Your task to perform on an android device: Go to Reddit.com Image 0: 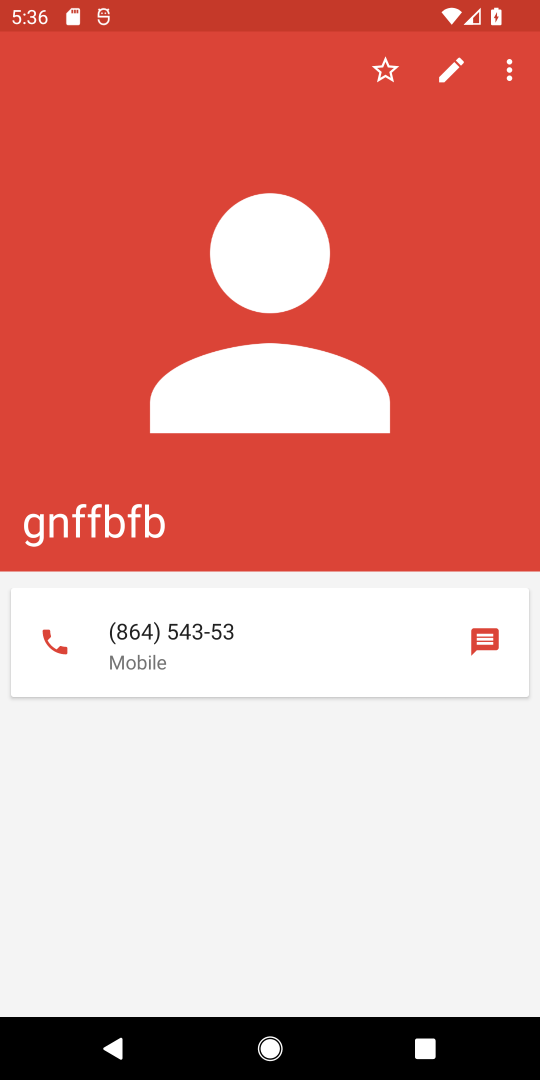
Step 0: press home button
Your task to perform on an android device: Go to Reddit.com Image 1: 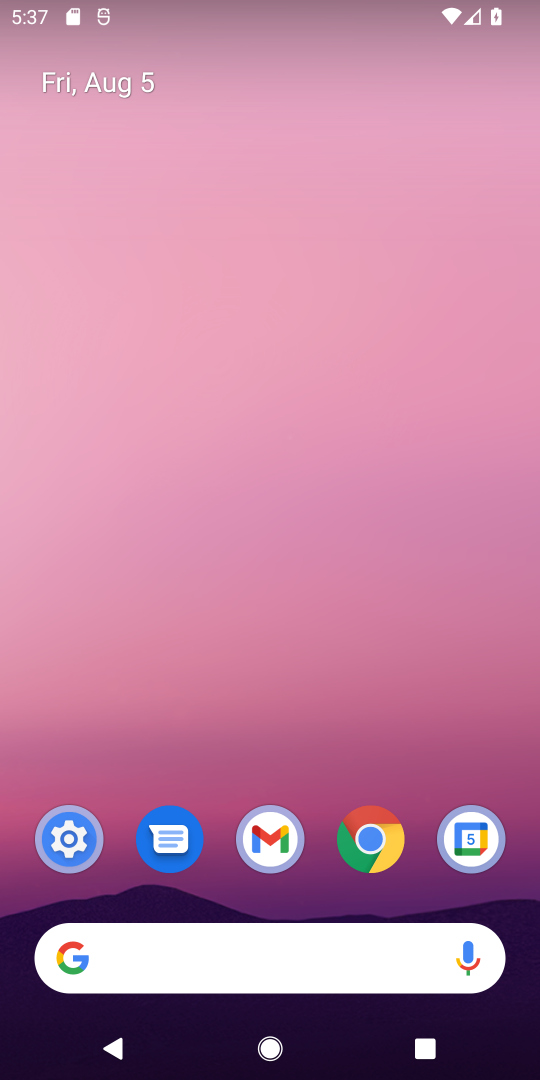
Step 1: click (388, 857)
Your task to perform on an android device: Go to Reddit.com Image 2: 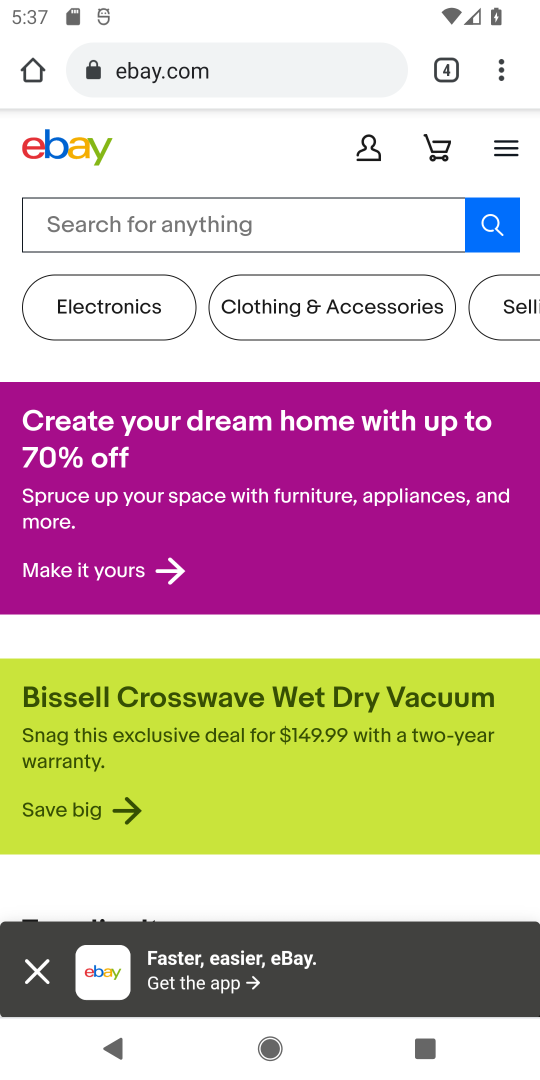
Step 2: click (434, 69)
Your task to perform on an android device: Go to Reddit.com Image 3: 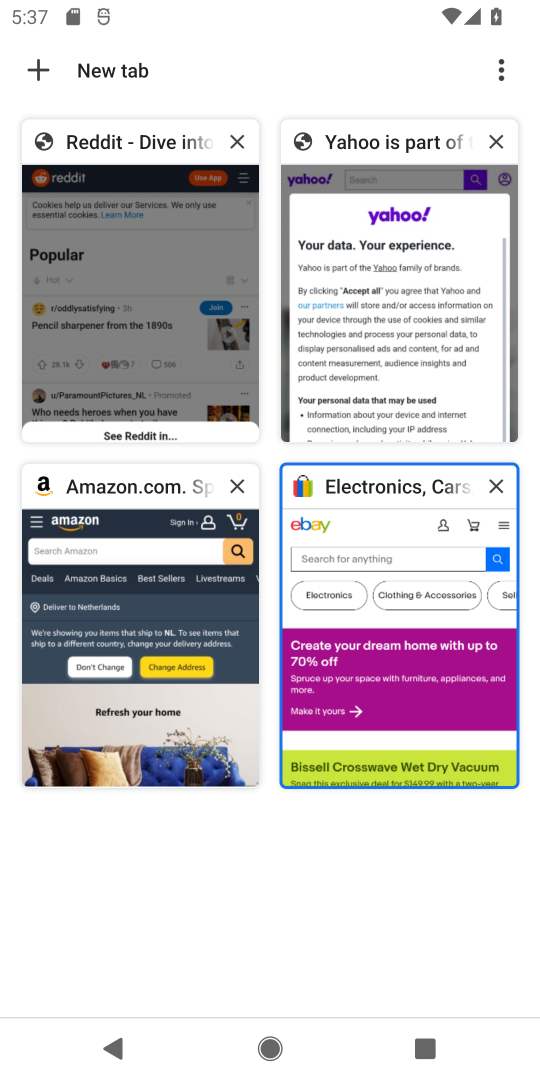
Step 3: click (42, 66)
Your task to perform on an android device: Go to Reddit.com Image 4: 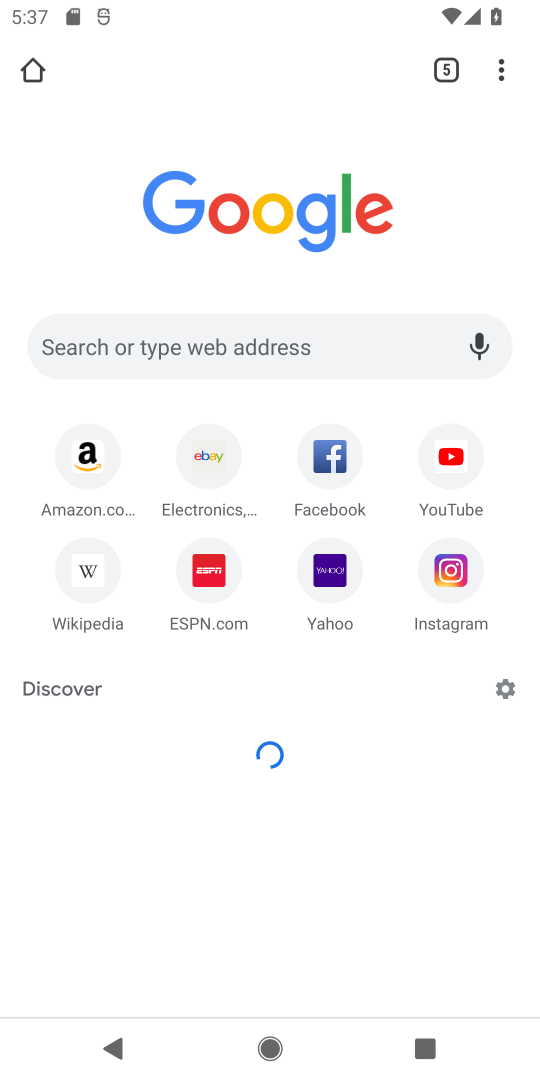
Step 4: click (229, 355)
Your task to perform on an android device: Go to Reddit.com Image 5: 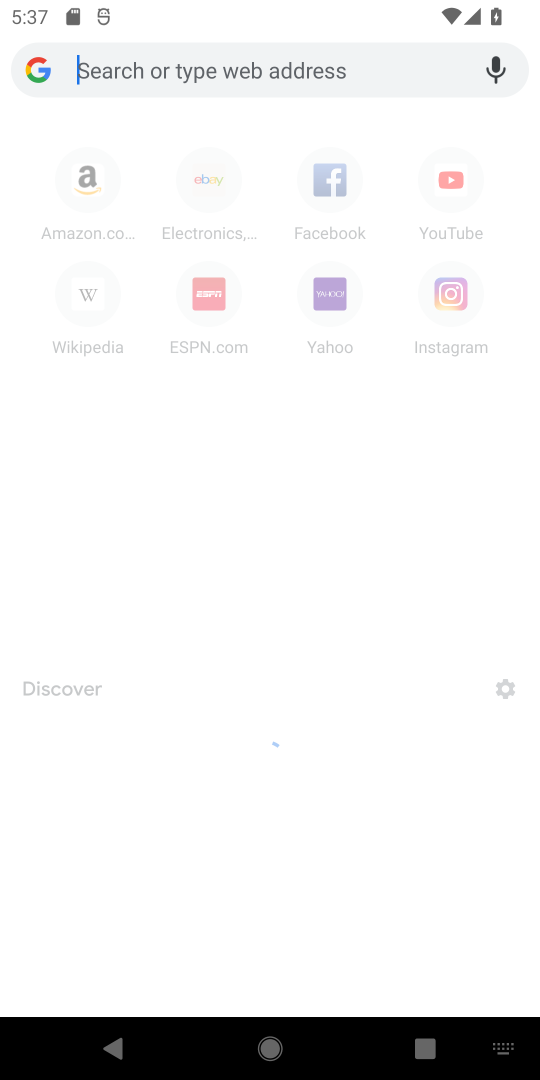
Step 5: type "Reddit.com"
Your task to perform on an android device: Go to Reddit.com Image 6: 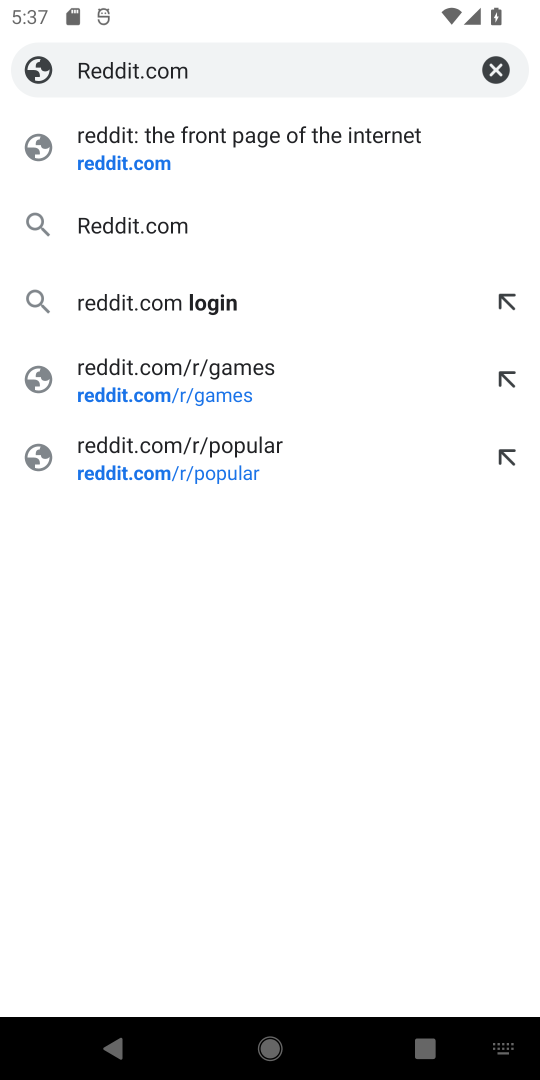
Step 6: click (254, 170)
Your task to perform on an android device: Go to Reddit.com Image 7: 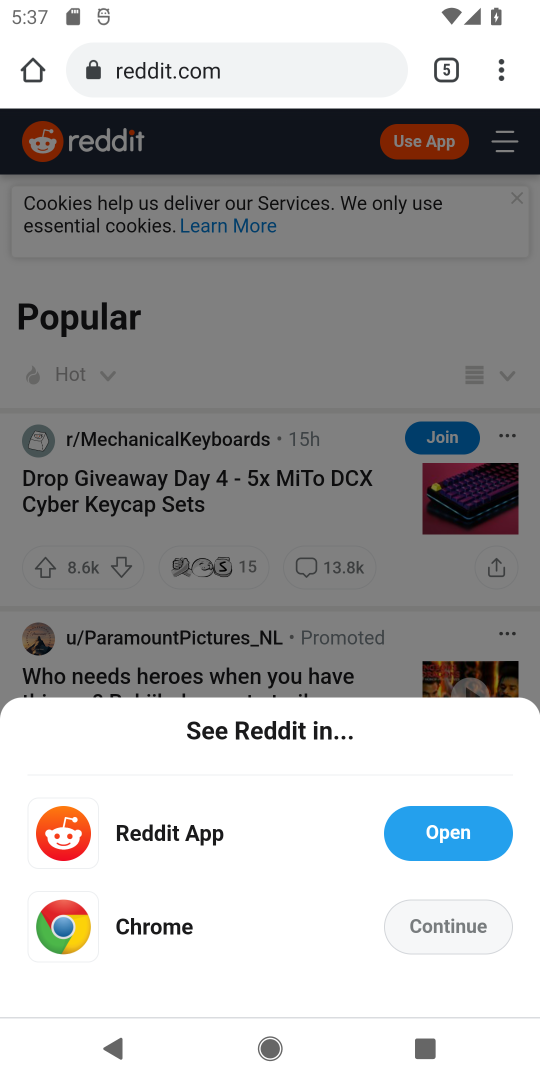
Step 7: task complete